Your task to perform on an android device: Open Google Chrome and click the shortcut for Amazon.com Image 0: 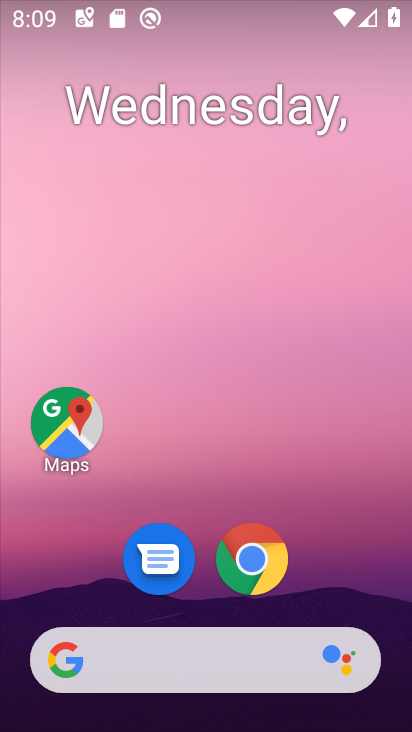
Step 0: drag from (323, 573) to (328, 146)
Your task to perform on an android device: Open Google Chrome and click the shortcut for Amazon.com Image 1: 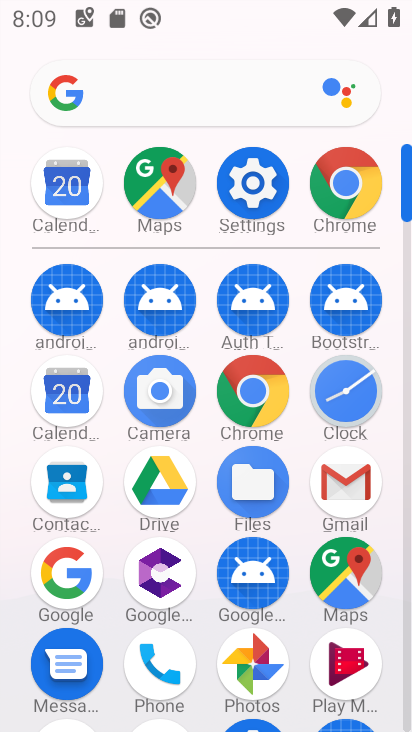
Step 1: click (273, 412)
Your task to perform on an android device: Open Google Chrome and click the shortcut for Amazon.com Image 2: 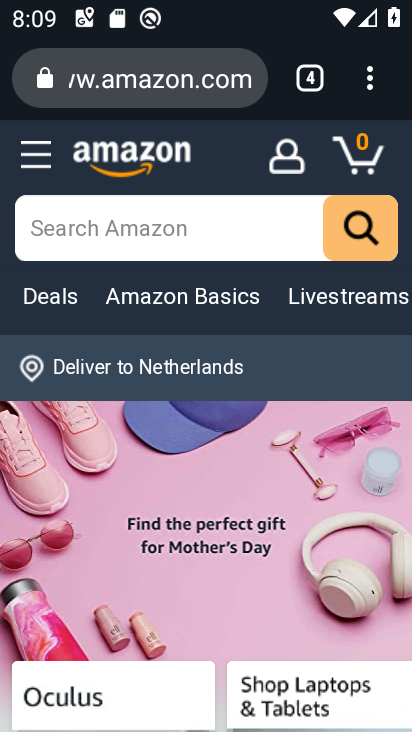
Step 2: task complete